Your task to perform on an android device: turn off smart reply in the gmail app Image 0: 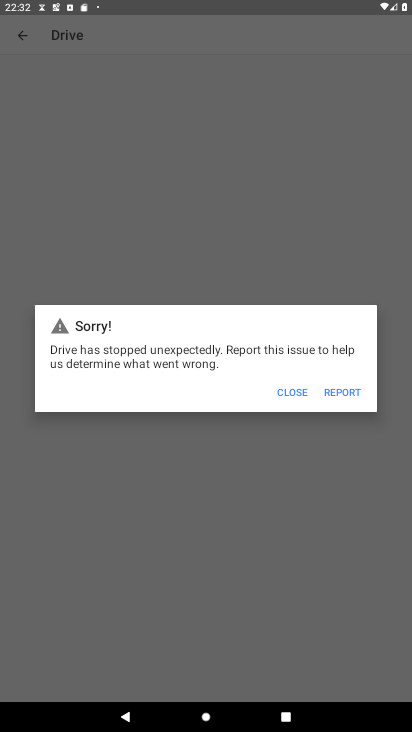
Step 0: press home button
Your task to perform on an android device: turn off smart reply in the gmail app Image 1: 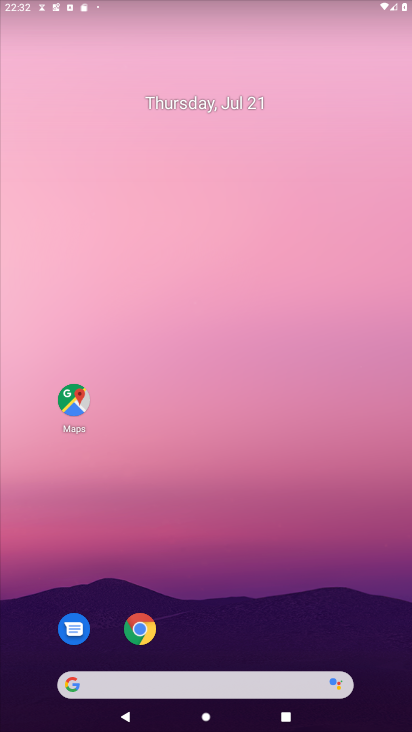
Step 1: drag from (249, 544) to (295, 197)
Your task to perform on an android device: turn off smart reply in the gmail app Image 2: 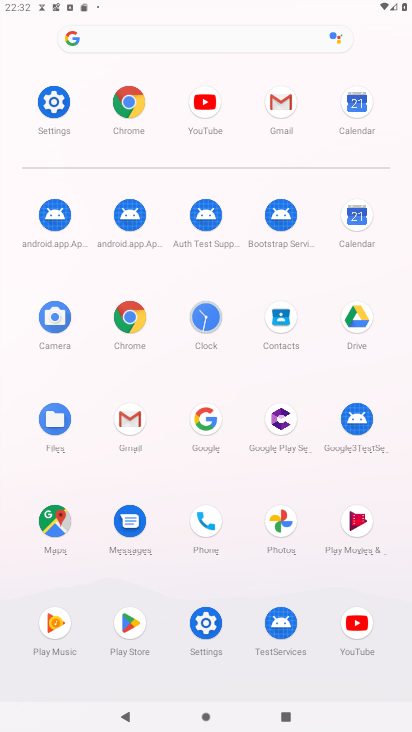
Step 2: click (130, 432)
Your task to perform on an android device: turn off smart reply in the gmail app Image 3: 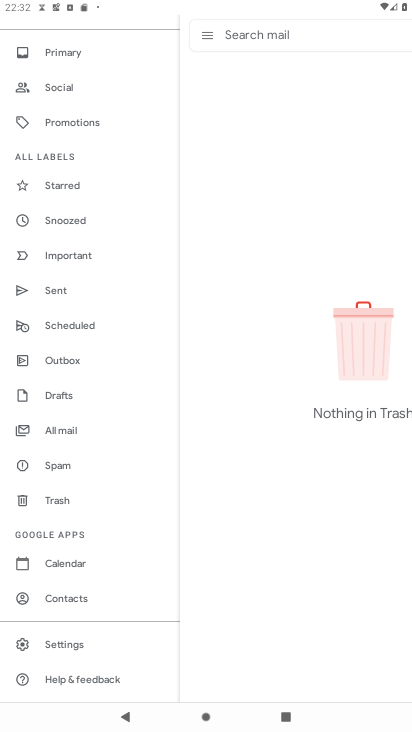
Step 3: click (95, 646)
Your task to perform on an android device: turn off smart reply in the gmail app Image 4: 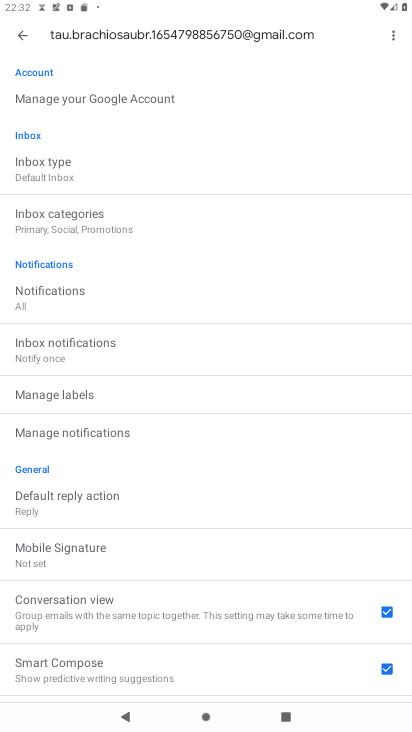
Step 4: task complete